Your task to perform on an android device: Go to wifi settings Image 0: 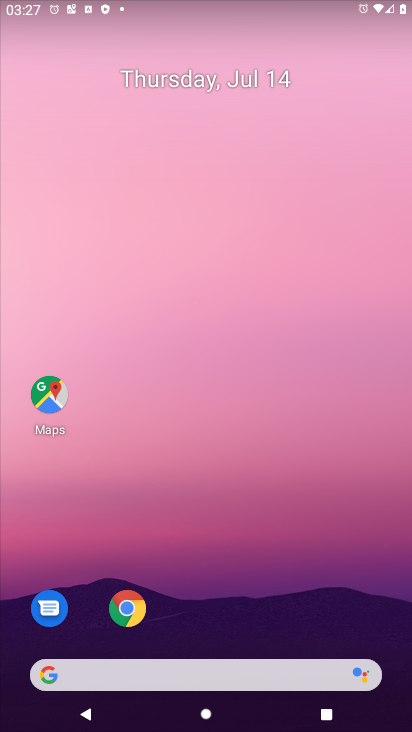
Step 0: drag from (379, 629) to (310, 28)
Your task to perform on an android device: Go to wifi settings Image 1: 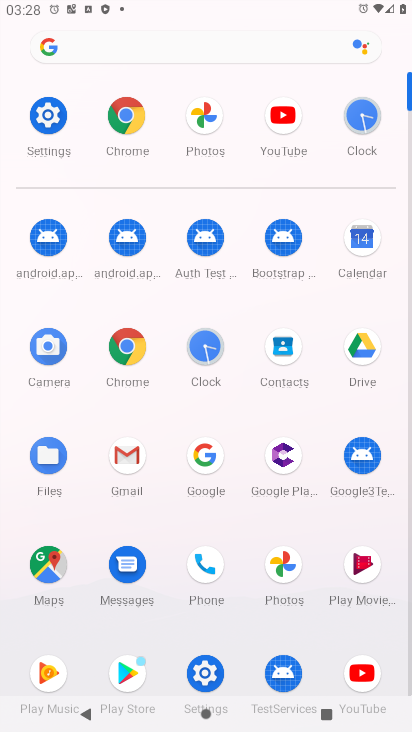
Step 1: click (206, 672)
Your task to perform on an android device: Go to wifi settings Image 2: 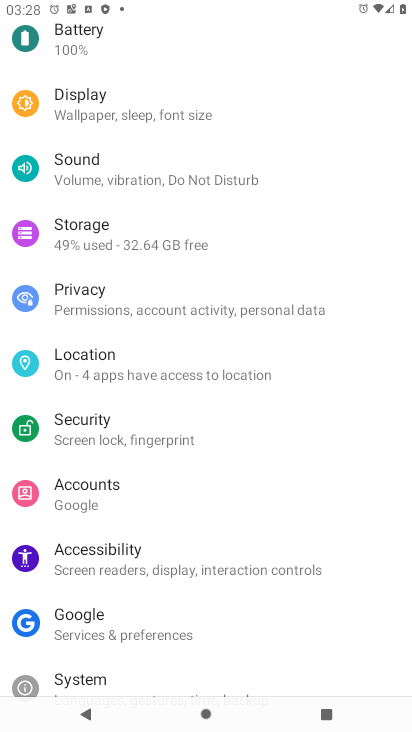
Step 2: drag from (332, 56) to (328, 411)
Your task to perform on an android device: Go to wifi settings Image 3: 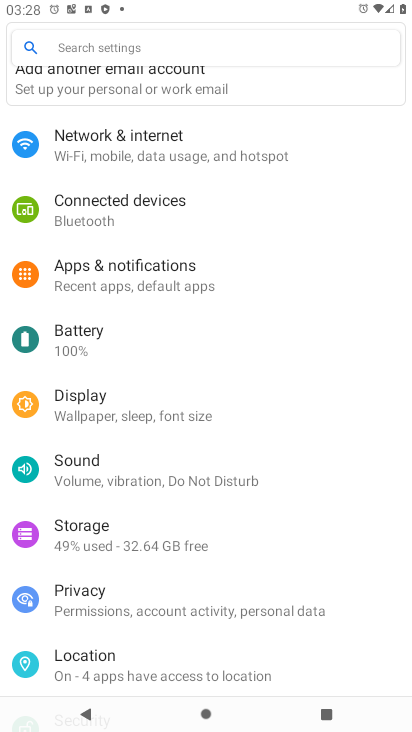
Step 3: click (105, 138)
Your task to perform on an android device: Go to wifi settings Image 4: 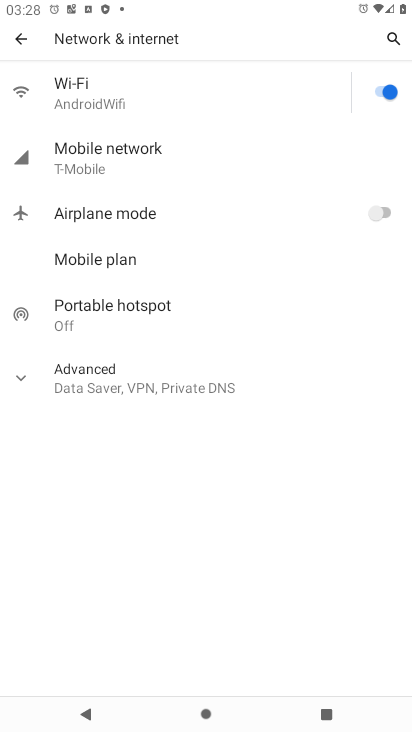
Step 4: click (74, 94)
Your task to perform on an android device: Go to wifi settings Image 5: 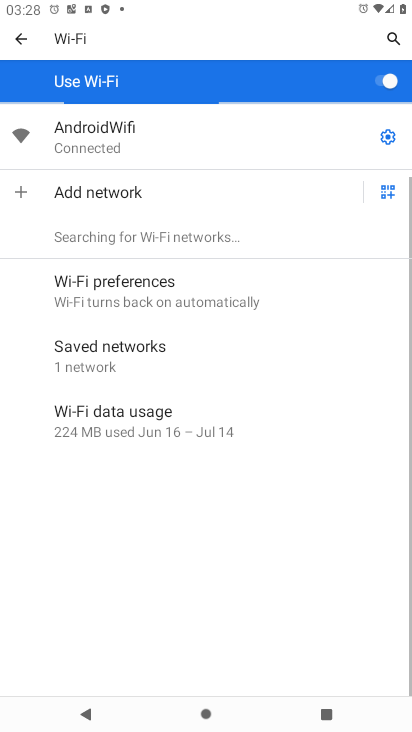
Step 5: task complete